Your task to perform on an android device: all mails in gmail Image 0: 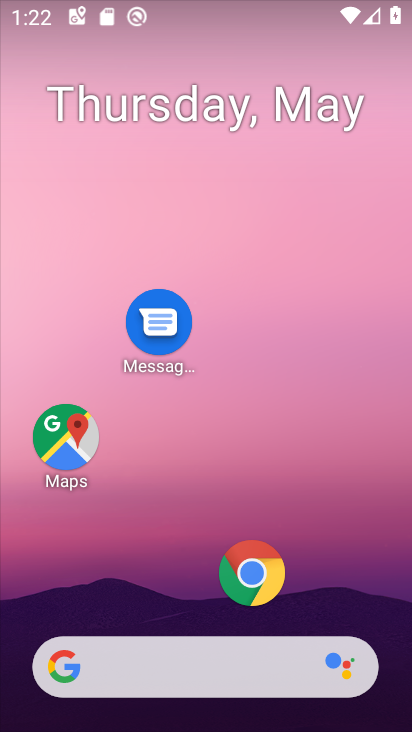
Step 0: drag from (122, 607) to (201, 131)
Your task to perform on an android device: all mails in gmail Image 1: 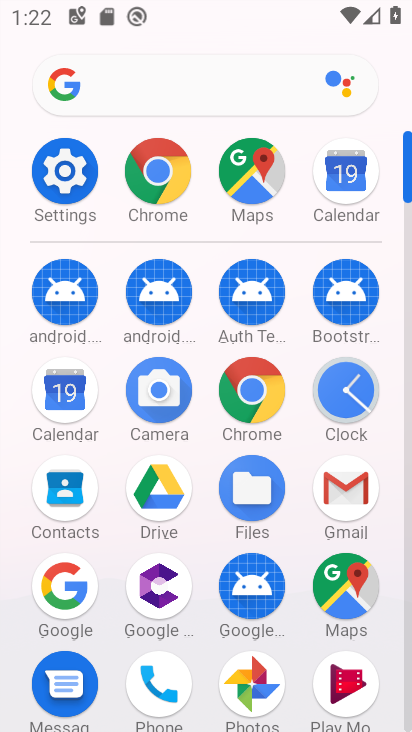
Step 1: click (342, 480)
Your task to perform on an android device: all mails in gmail Image 2: 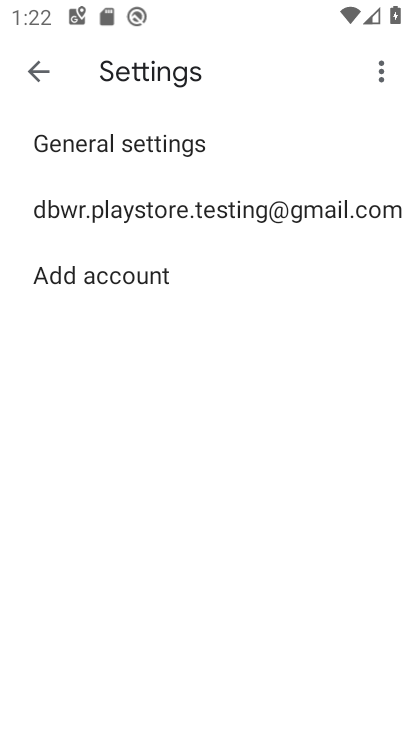
Step 2: click (116, 206)
Your task to perform on an android device: all mails in gmail Image 3: 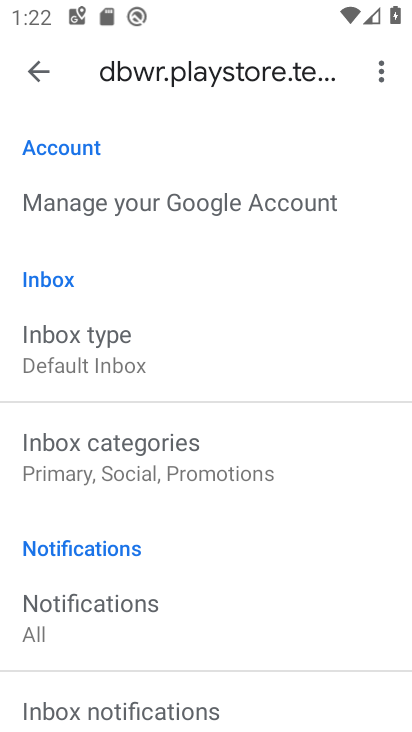
Step 3: click (47, 77)
Your task to perform on an android device: all mails in gmail Image 4: 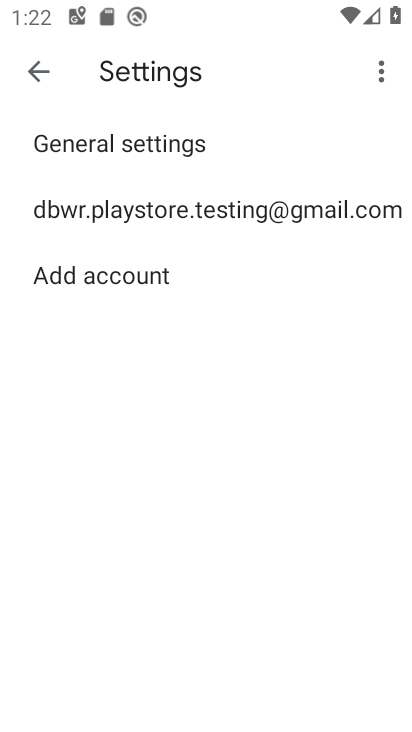
Step 4: click (47, 77)
Your task to perform on an android device: all mails in gmail Image 5: 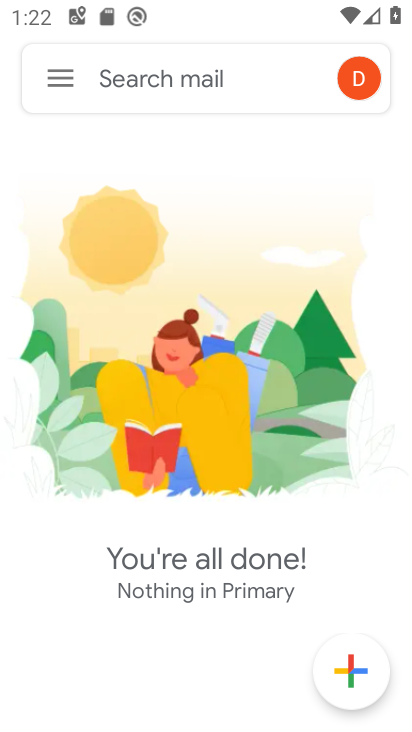
Step 5: click (32, 75)
Your task to perform on an android device: all mails in gmail Image 6: 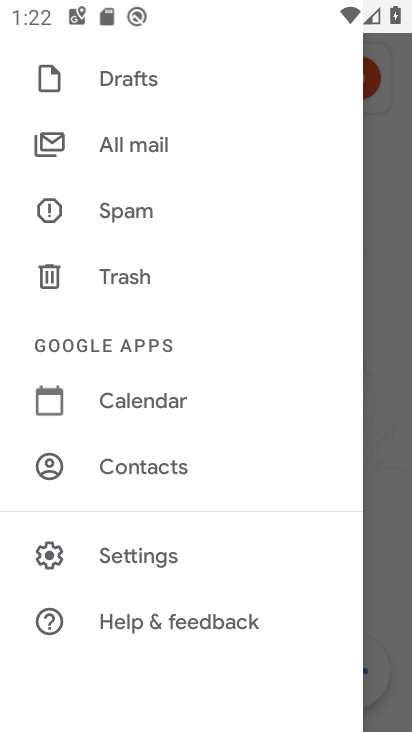
Step 6: click (132, 137)
Your task to perform on an android device: all mails in gmail Image 7: 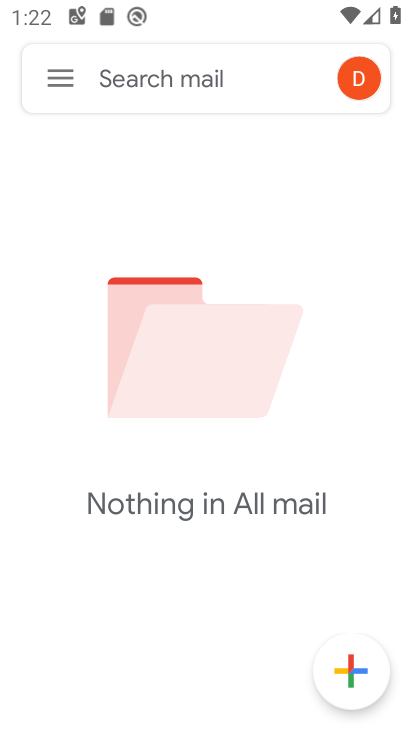
Step 7: task complete